Your task to perform on an android device: Open Android settings Image 0: 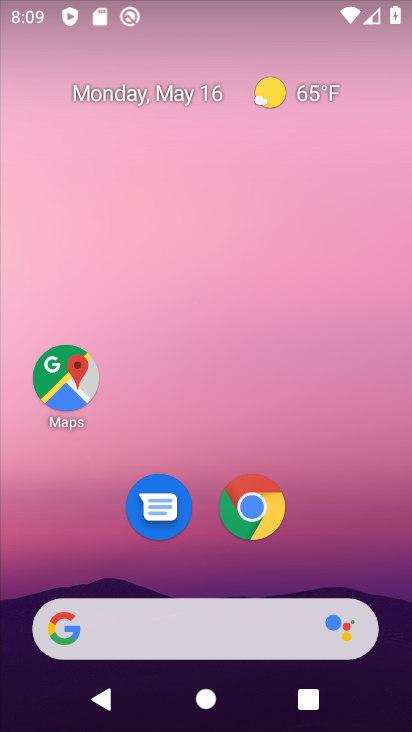
Step 0: drag from (226, 565) to (137, 33)
Your task to perform on an android device: Open Android settings Image 1: 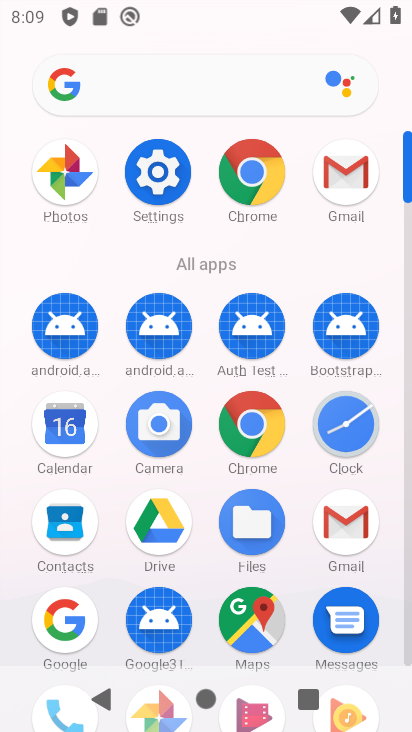
Step 1: click (157, 187)
Your task to perform on an android device: Open Android settings Image 2: 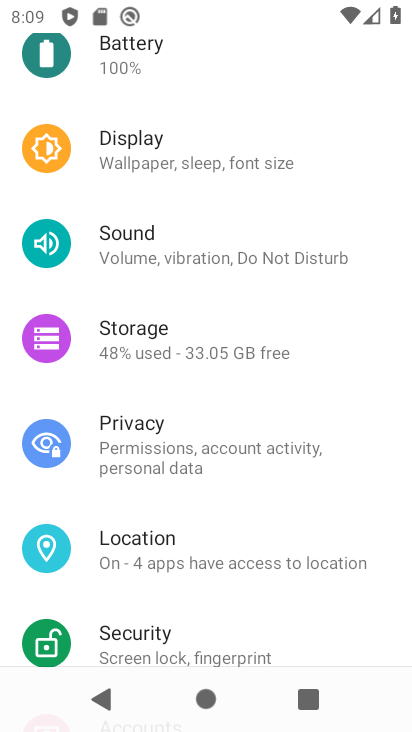
Step 2: task complete